Your task to perform on an android device: Clear all items from cart on newegg.com. Add "acer predator" to the cart on newegg.com, then select checkout. Image 0: 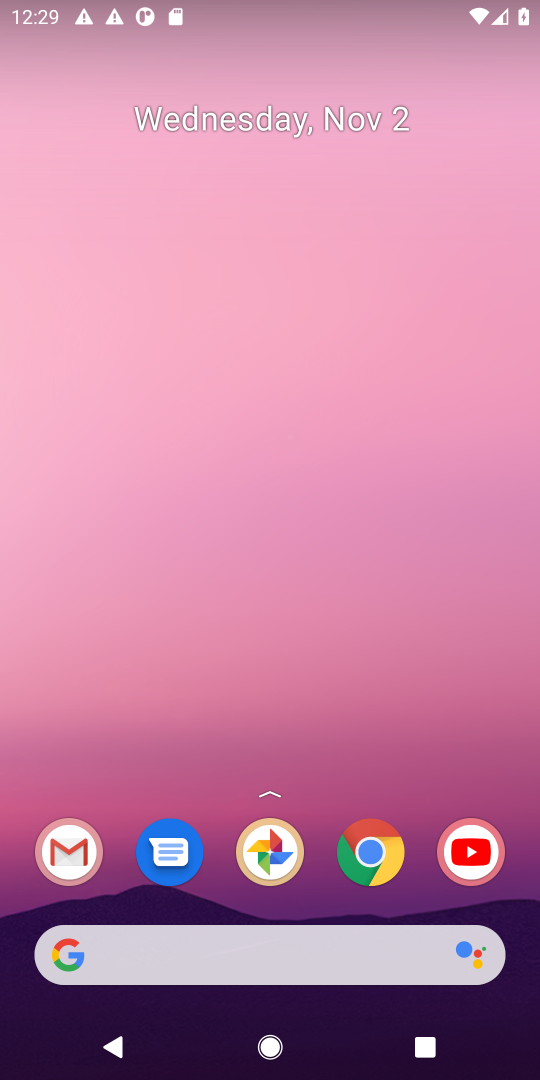
Step 0: press home button
Your task to perform on an android device: Clear all items from cart on newegg.com. Add "acer predator" to the cart on newegg.com, then select checkout. Image 1: 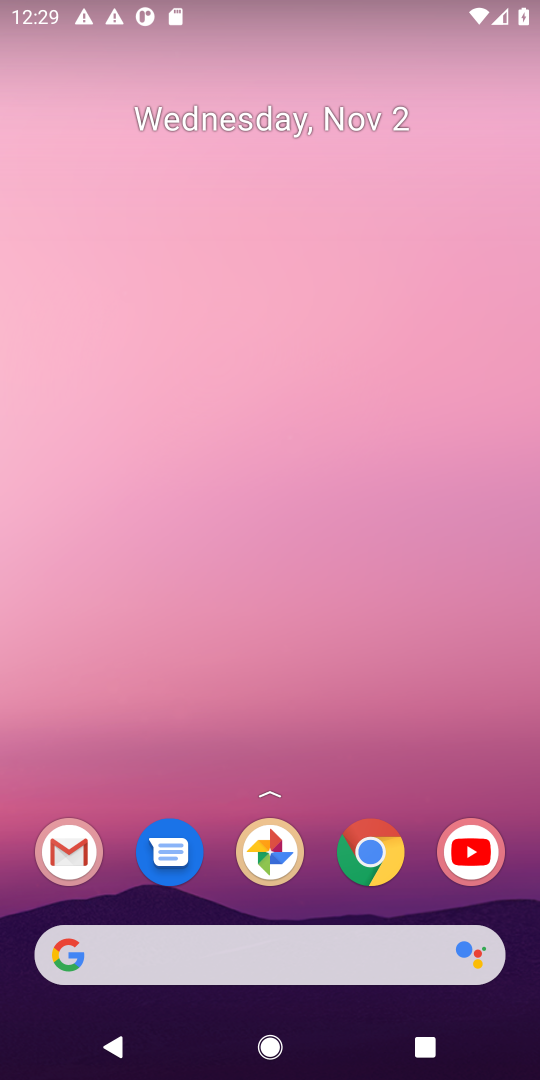
Step 1: click (67, 956)
Your task to perform on an android device: Clear all items from cart on newegg.com. Add "acer predator" to the cart on newegg.com, then select checkout. Image 2: 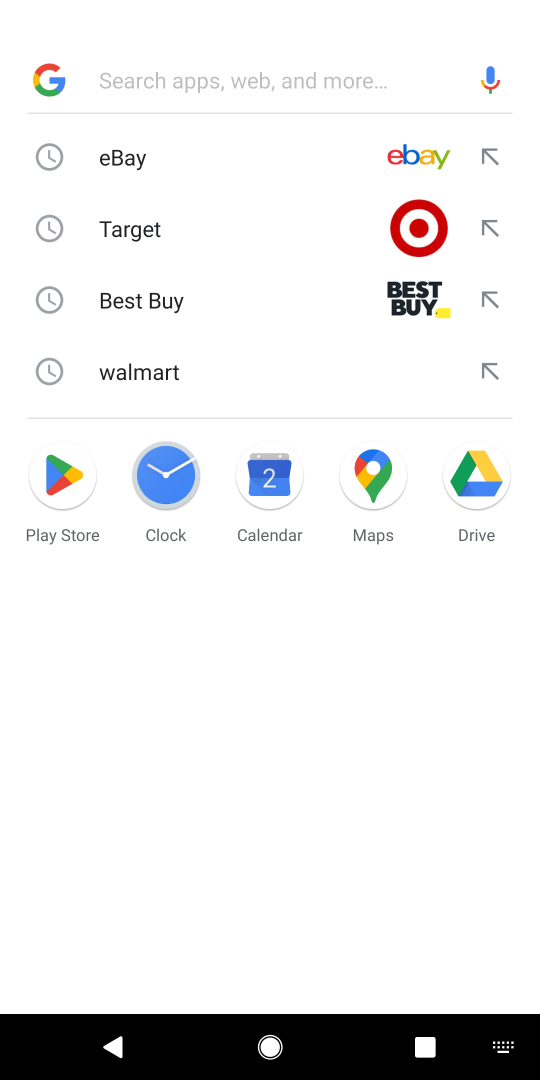
Step 2: type "newegg.com"
Your task to perform on an android device: Clear all items from cart on newegg.com. Add "acer predator" to the cart on newegg.com, then select checkout. Image 3: 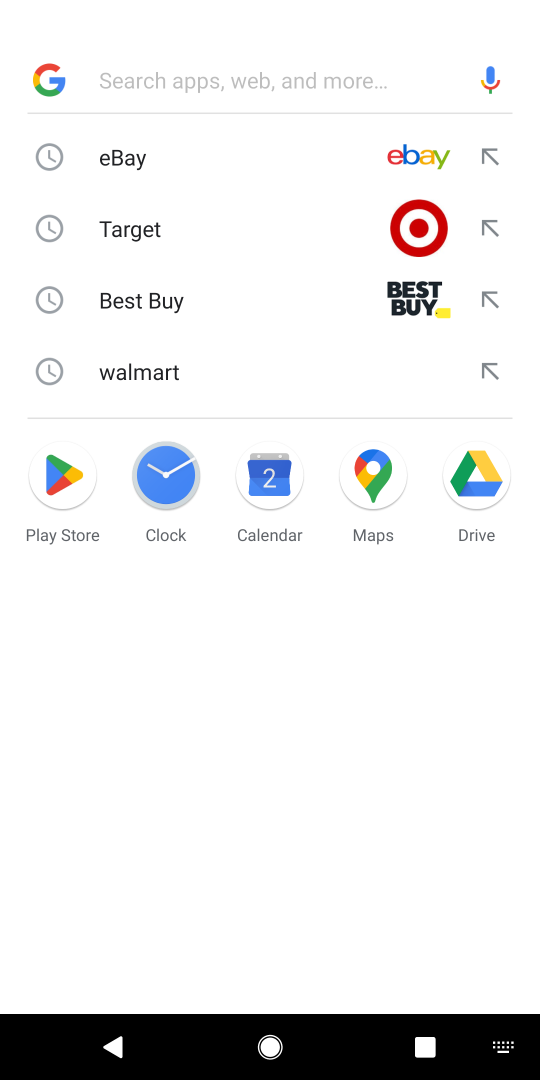
Step 3: click (136, 80)
Your task to perform on an android device: Clear all items from cart on newegg.com. Add "acer predator" to the cart on newegg.com, then select checkout. Image 4: 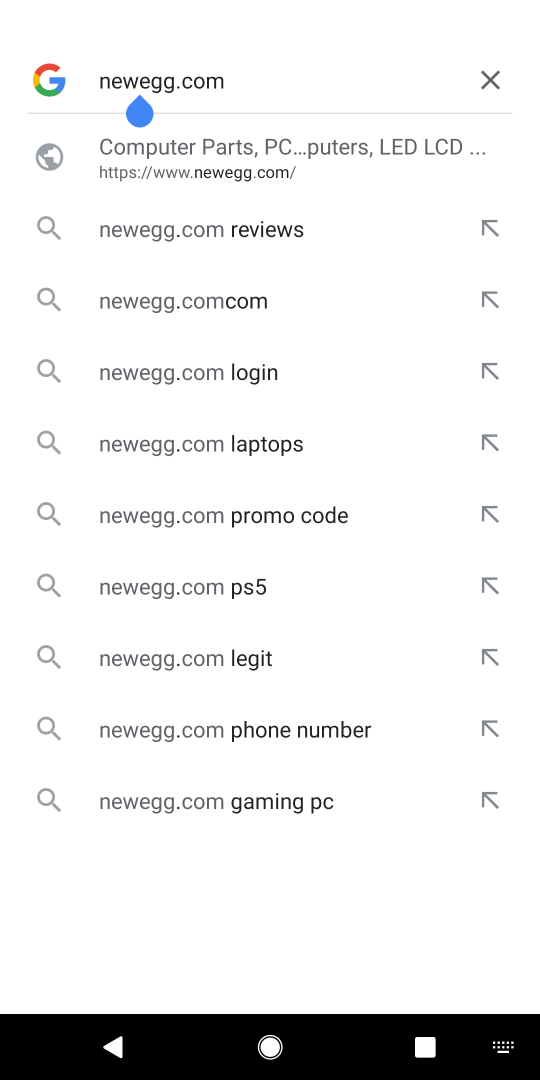
Step 4: press enter
Your task to perform on an android device: Clear all items from cart on newegg.com. Add "acer predator" to the cart on newegg.com, then select checkout. Image 5: 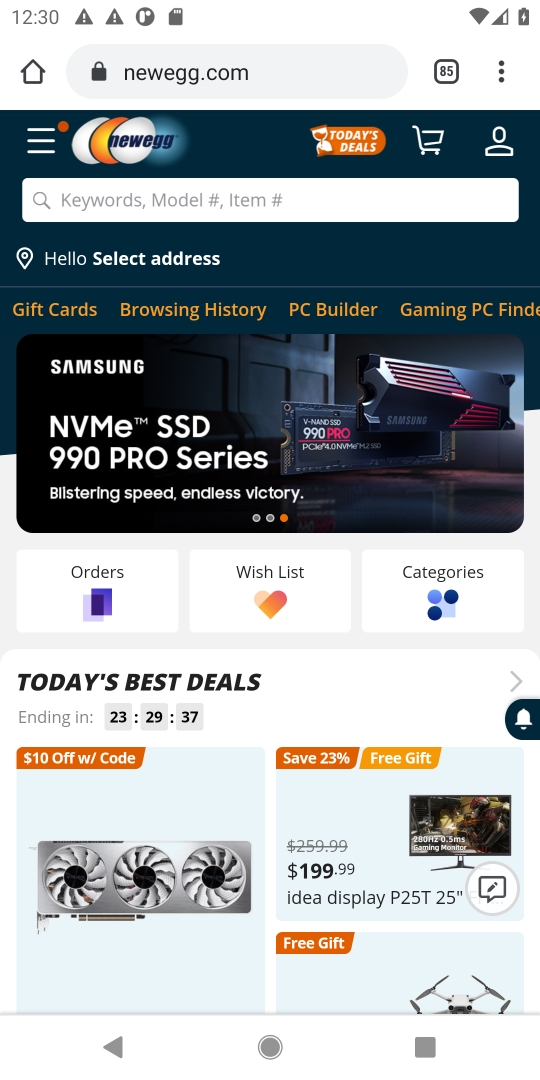
Step 5: click (149, 205)
Your task to perform on an android device: Clear all items from cart on newegg.com. Add "acer predator" to the cart on newegg.com, then select checkout. Image 6: 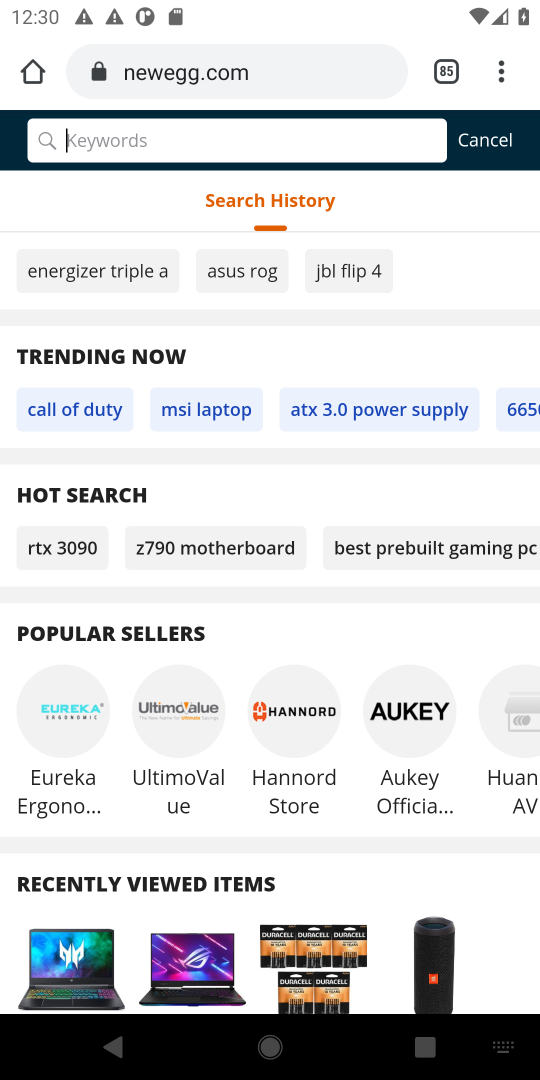
Step 6: type "acer predator"
Your task to perform on an android device: Clear all items from cart on newegg.com. Add "acer predator" to the cart on newegg.com, then select checkout. Image 7: 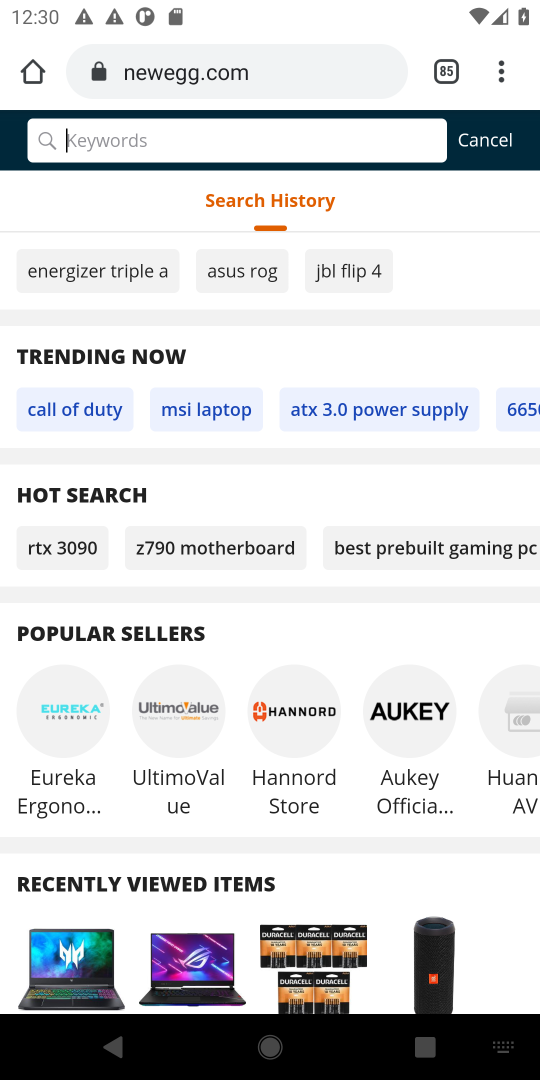
Step 7: click (103, 134)
Your task to perform on an android device: Clear all items from cart on newegg.com. Add "acer predator" to the cart on newegg.com, then select checkout. Image 8: 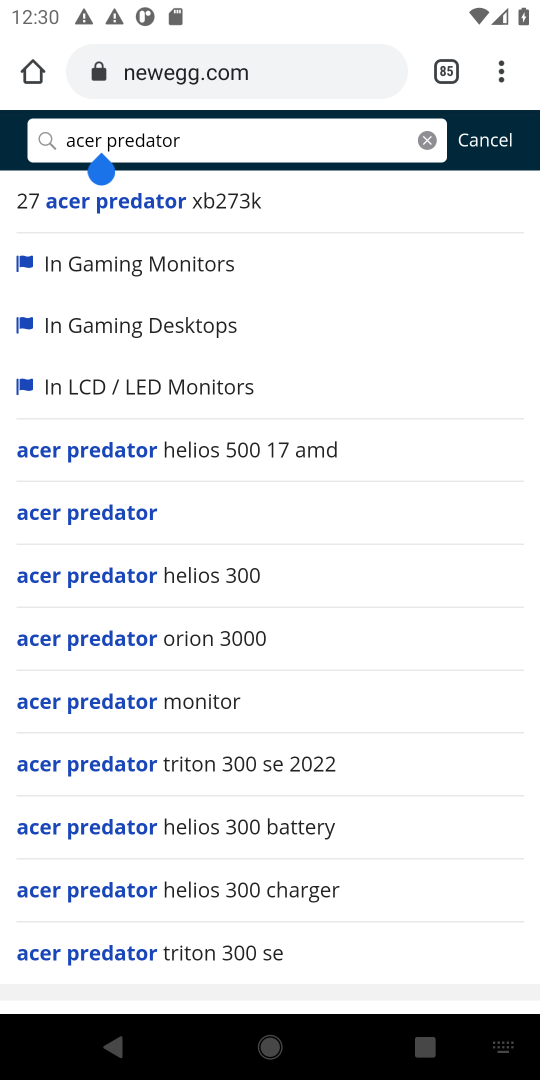
Step 8: press enter
Your task to perform on an android device: Clear all items from cart on newegg.com. Add "acer predator" to the cart on newegg.com, then select checkout. Image 9: 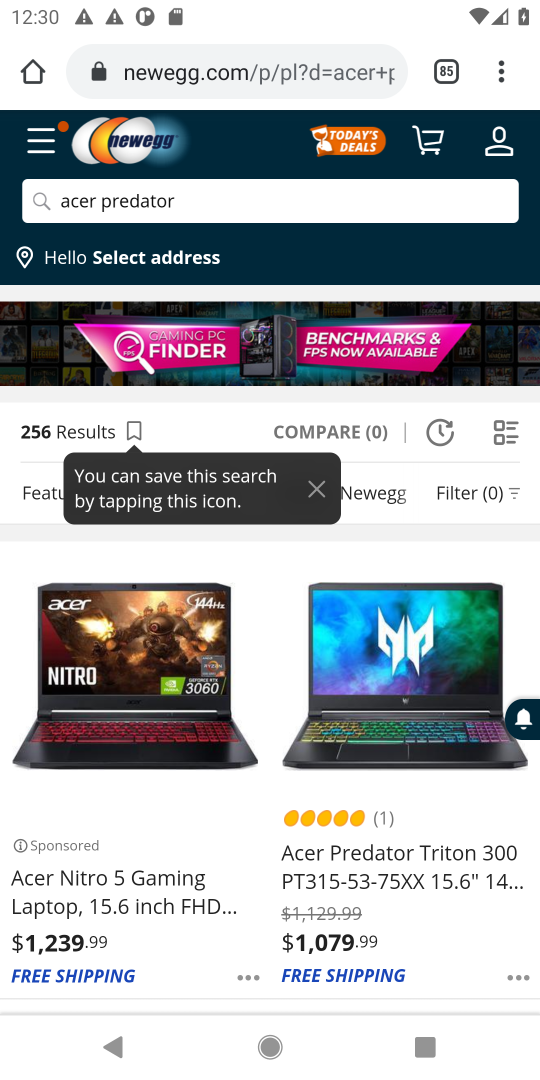
Step 9: drag from (226, 979) to (265, 836)
Your task to perform on an android device: Clear all items from cart on newegg.com. Add "acer predator" to the cart on newegg.com, then select checkout. Image 10: 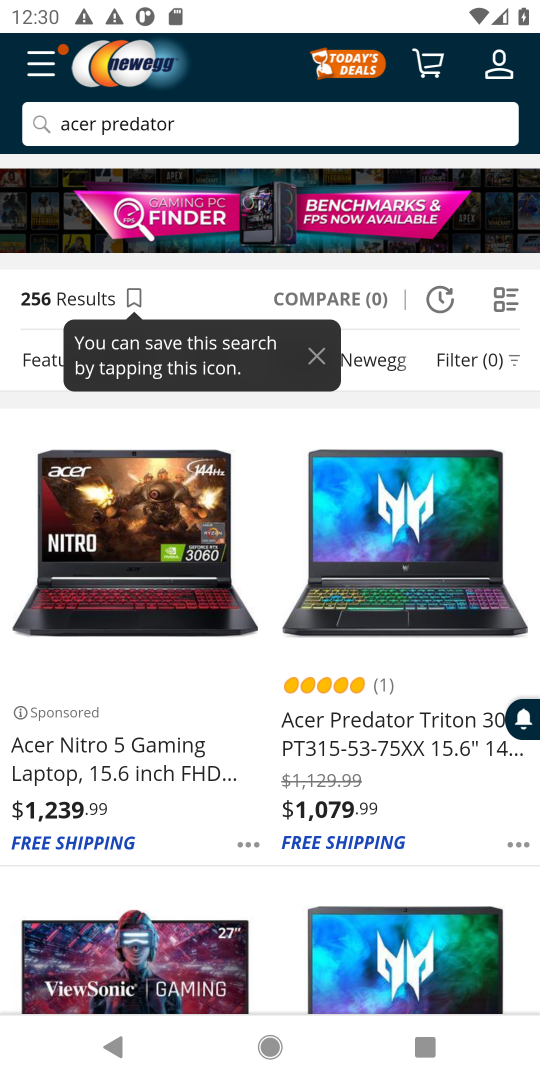
Step 10: click (429, 726)
Your task to perform on an android device: Clear all items from cart on newegg.com. Add "acer predator" to the cart on newegg.com, then select checkout. Image 11: 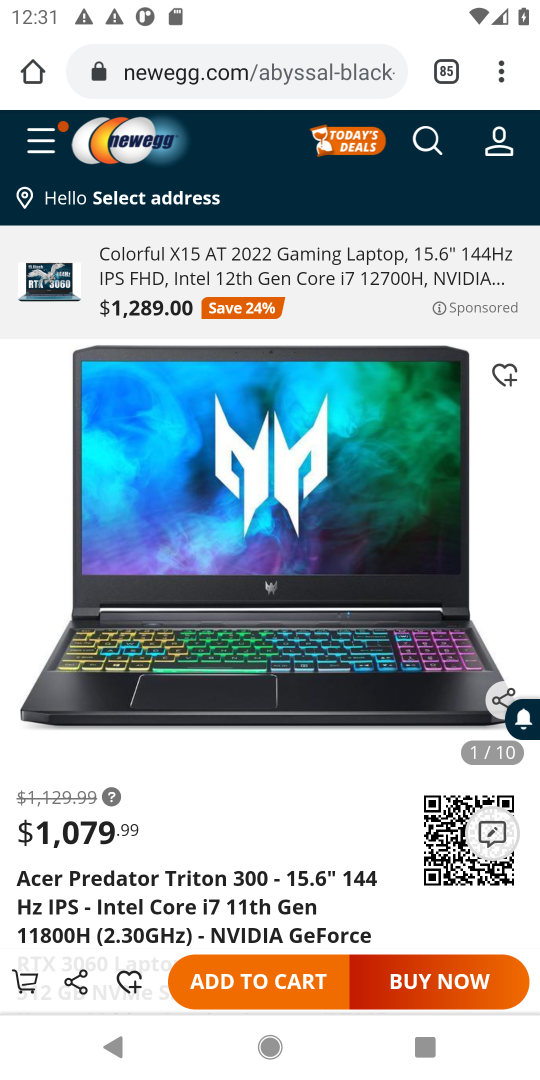
Step 11: click (277, 985)
Your task to perform on an android device: Clear all items from cart on newegg.com. Add "acer predator" to the cart on newegg.com, then select checkout. Image 12: 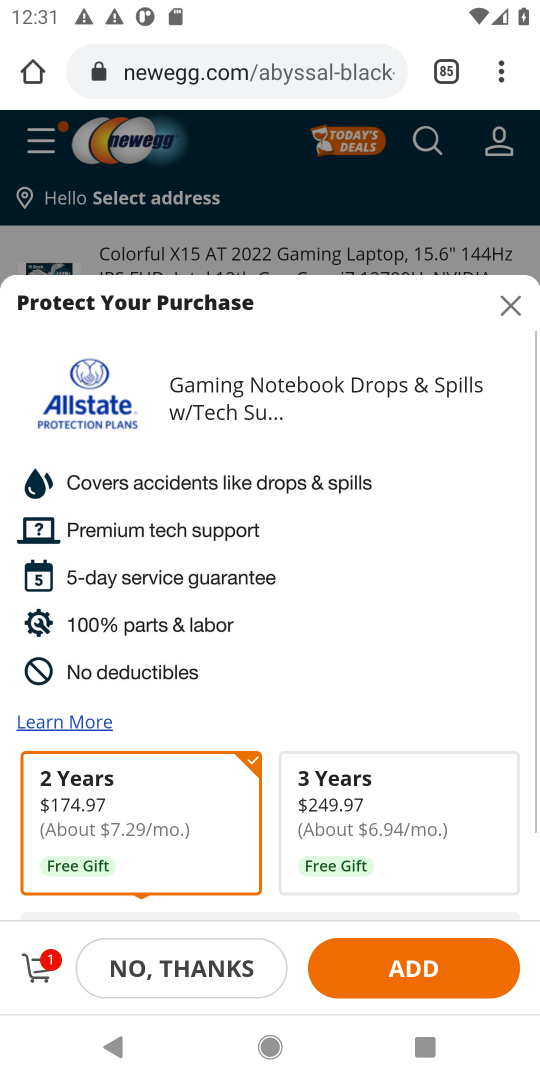
Step 12: click (32, 971)
Your task to perform on an android device: Clear all items from cart on newegg.com. Add "acer predator" to the cart on newegg.com, then select checkout. Image 13: 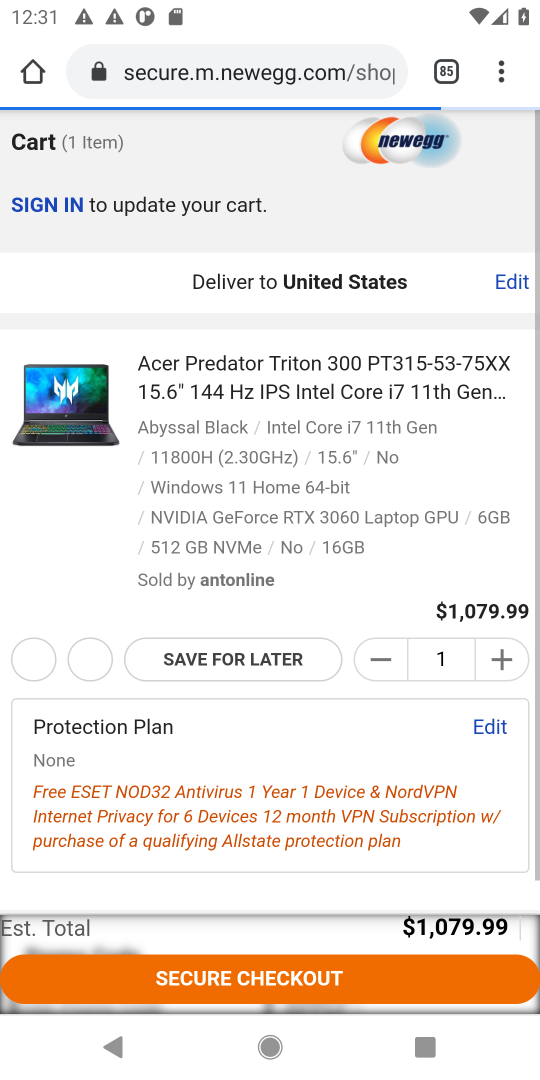
Step 13: click (282, 977)
Your task to perform on an android device: Clear all items from cart on newegg.com. Add "acer predator" to the cart on newegg.com, then select checkout. Image 14: 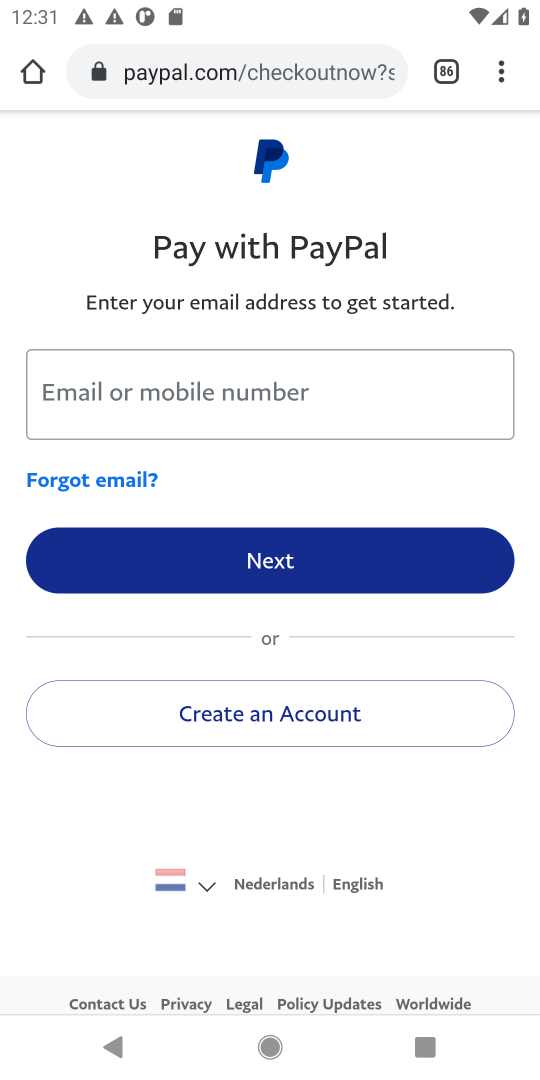
Step 14: task complete